Your task to perform on an android device: set the stopwatch Image 0: 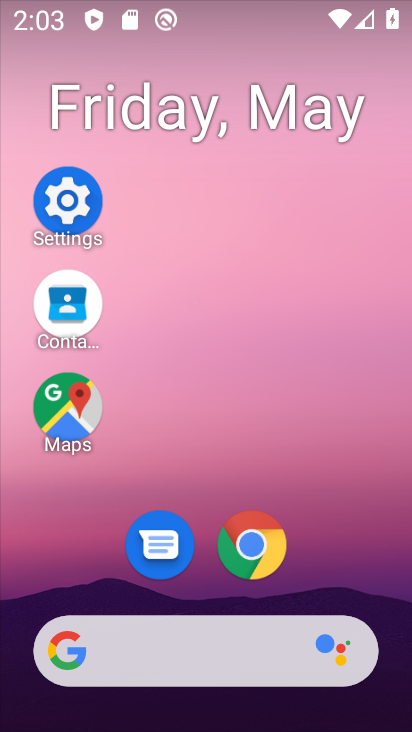
Step 0: drag from (368, 563) to (310, 56)
Your task to perform on an android device: set the stopwatch Image 1: 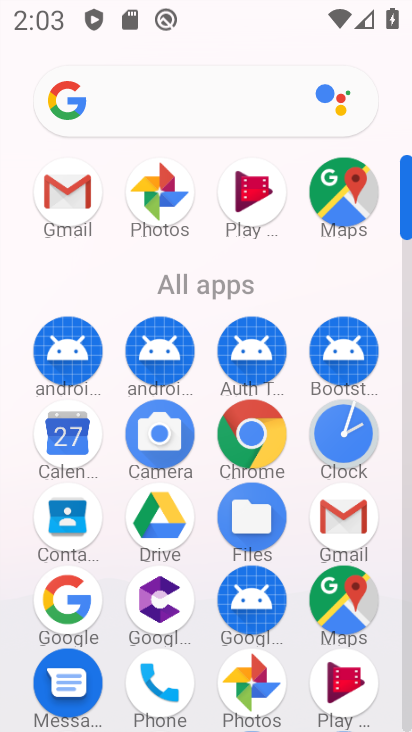
Step 1: drag from (195, 573) to (234, 231)
Your task to perform on an android device: set the stopwatch Image 2: 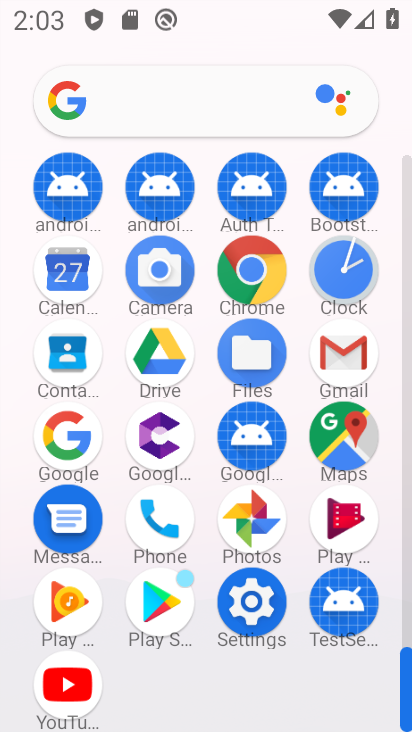
Step 2: drag from (333, 279) to (181, 233)
Your task to perform on an android device: set the stopwatch Image 3: 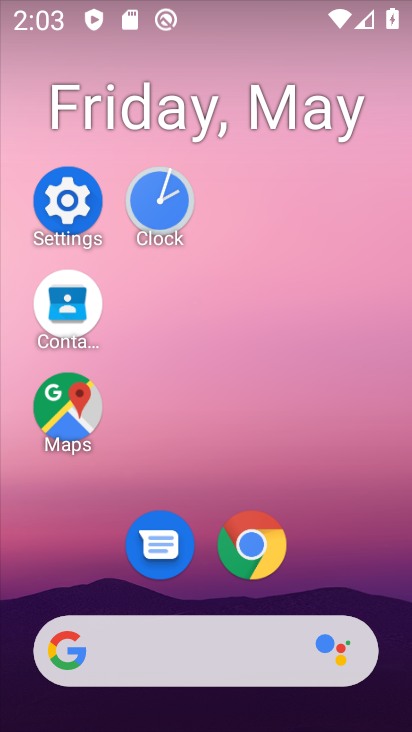
Step 3: click (171, 211)
Your task to perform on an android device: set the stopwatch Image 4: 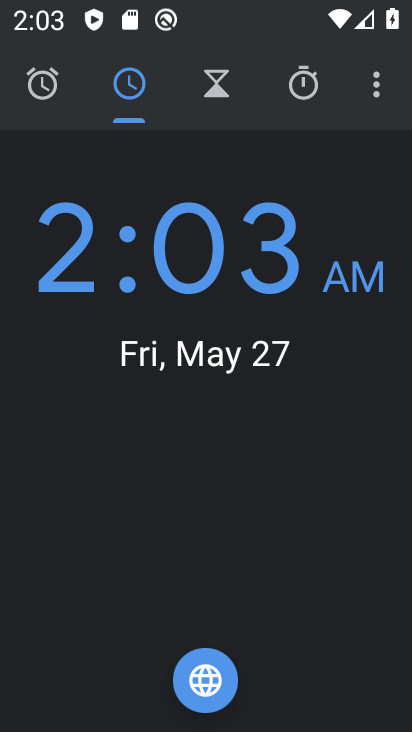
Step 4: click (320, 82)
Your task to perform on an android device: set the stopwatch Image 5: 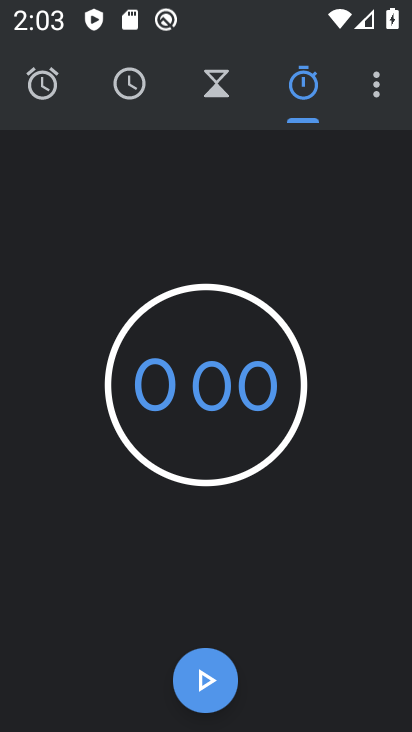
Step 5: click (199, 690)
Your task to perform on an android device: set the stopwatch Image 6: 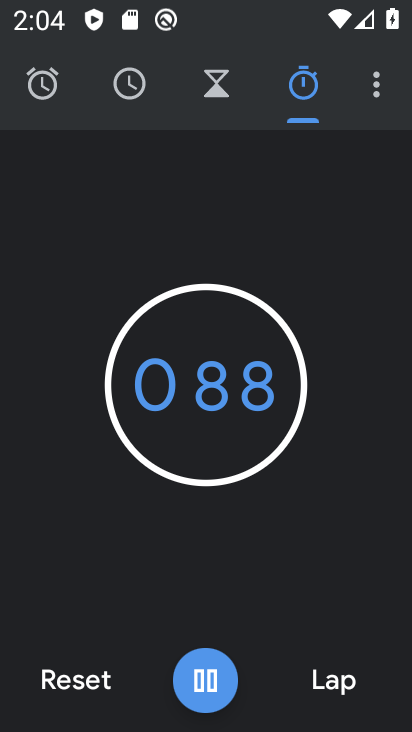
Step 6: task complete